Your task to perform on an android device: manage bookmarks in the chrome app Image 0: 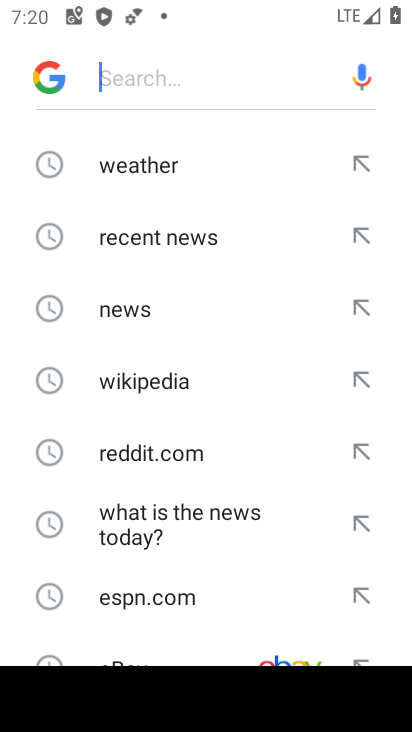
Step 0: press home button
Your task to perform on an android device: manage bookmarks in the chrome app Image 1: 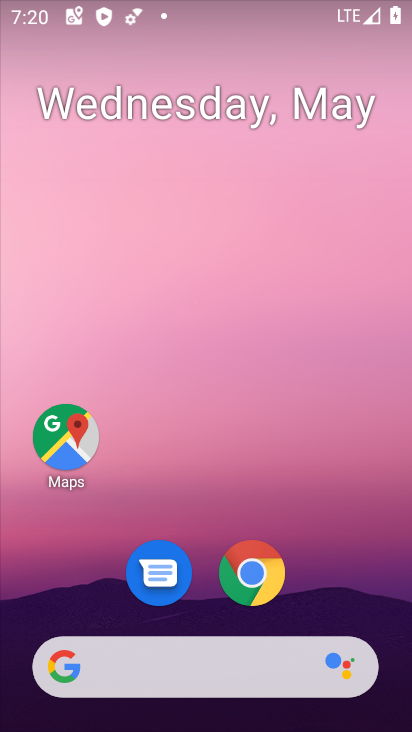
Step 1: click (249, 575)
Your task to perform on an android device: manage bookmarks in the chrome app Image 2: 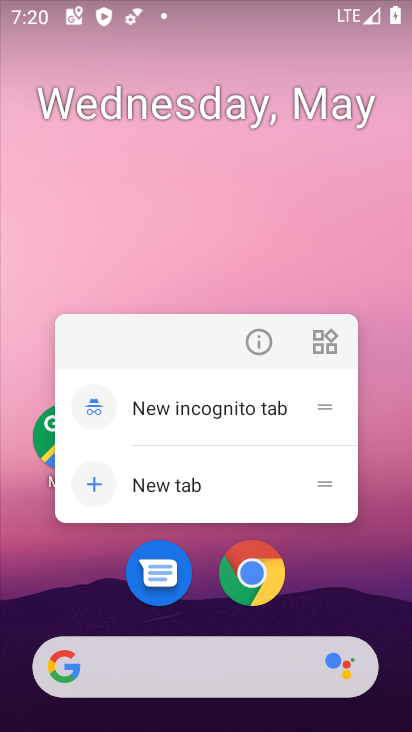
Step 2: click (248, 585)
Your task to perform on an android device: manage bookmarks in the chrome app Image 3: 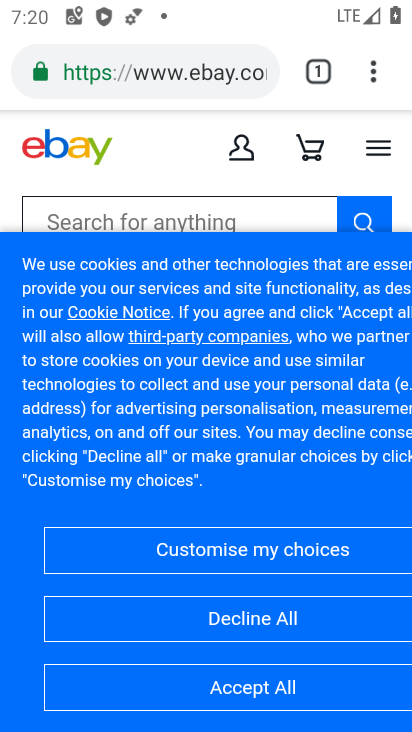
Step 3: click (367, 83)
Your task to perform on an android device: manage bookmarks in the chrome app Image 4: 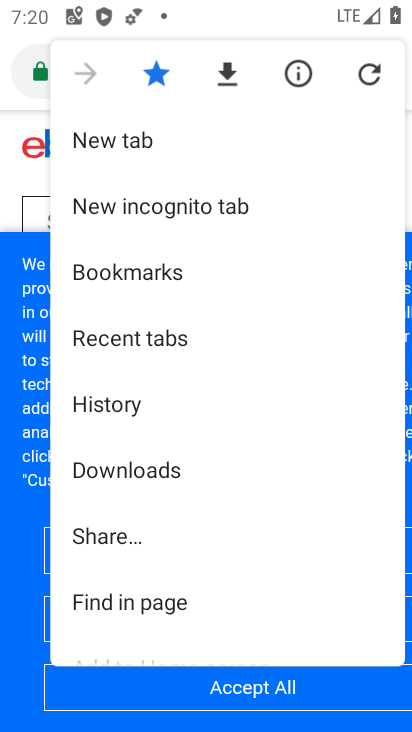
Step 4: click (164, 273)
Your task to perform on an android device: manage bookmarks in the chrome app Image 5: 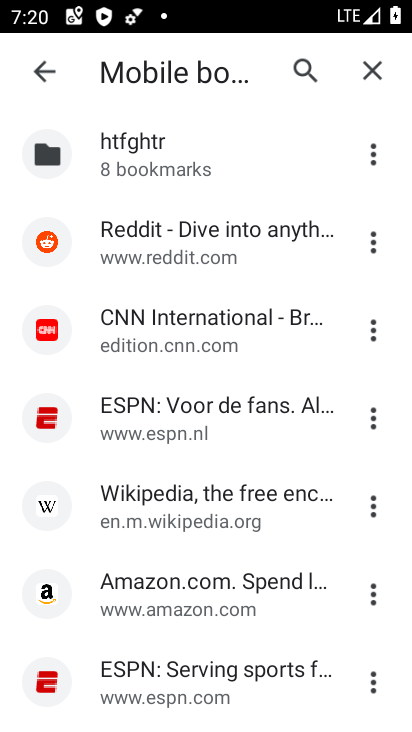
Step 5: task complete